Your task to perform on an android device: toggle show notifications on the lock screen Image 0: 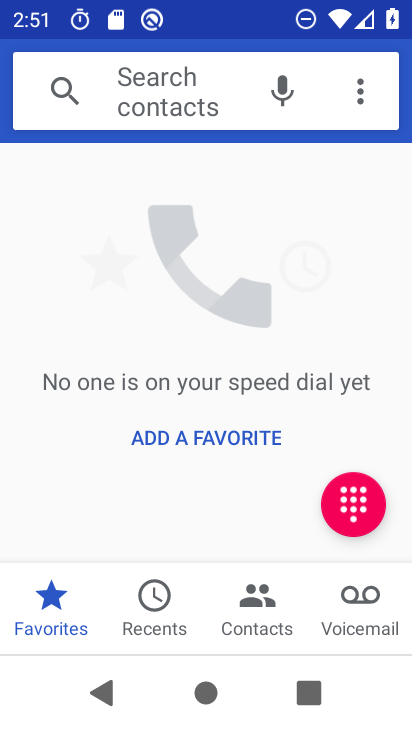
Step 0: press home button
Your task to perform on an android device: toggle show notifications on the lock screen Image 1: 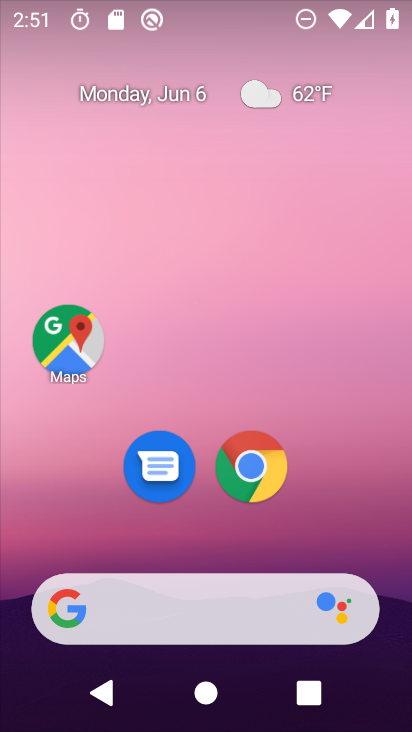
Step 1: drag from (213, 545) to (226, 60)
Your task to perform on an android device: toggle show notifications on the lock screen Image 2: 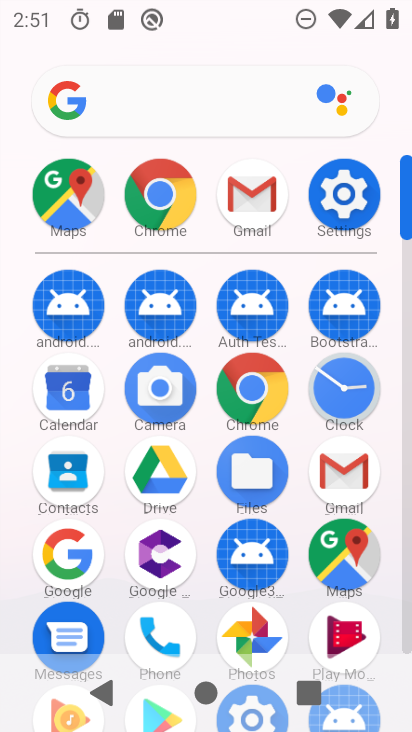
Step 2: click (345, 196)
Your task to perform on an android device: toggle show notifications on the lock screen Image 3: 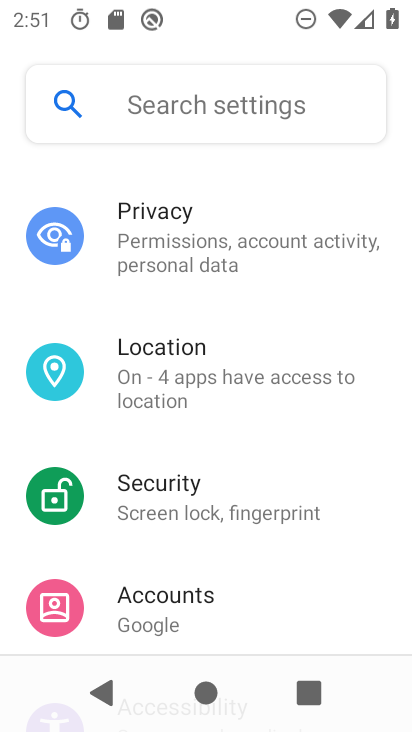
Step 3: drag from (251, 594) to (279, 293)
Your task to perform on an android device: toggle show notifications on the lock screen Image 4: 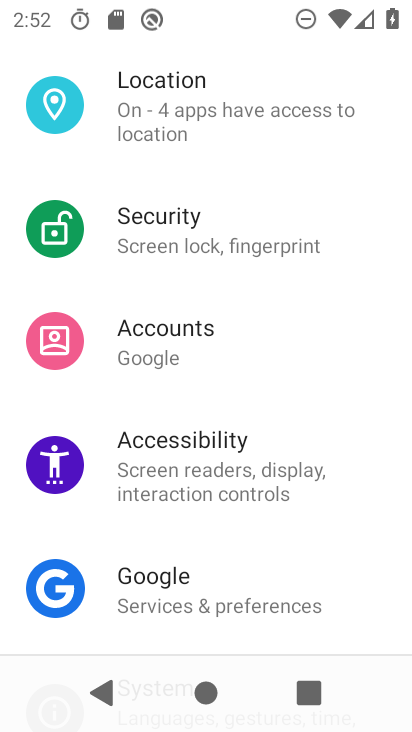
Step 4: drag from (215, 504) to (196, 209)
Your task to perform on an android device: toggle show notifications on the lock screen Image 5: 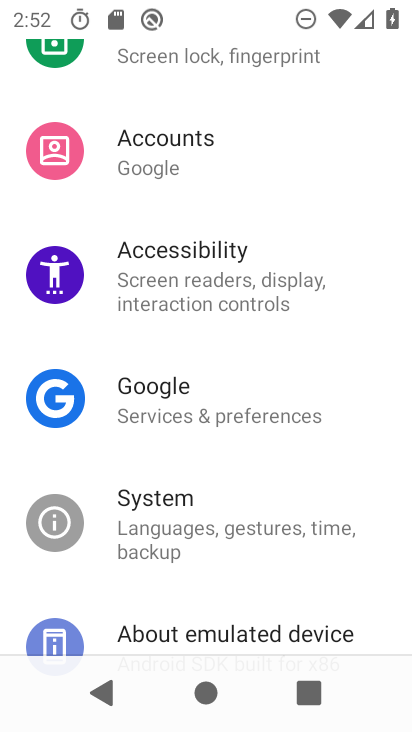
Step 5: drag from (238, 542) to (242, 284)
Your task to perform on an android device: toggle show notifications on the lock screen Image 6: 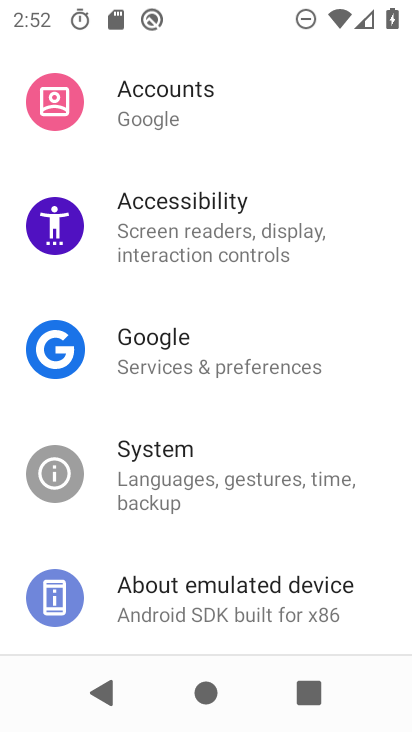
Step 6: drag from (242, 289) to (235, 562)
Your task to perform on an android device: toggle show notifications on the lock screen Image 7: 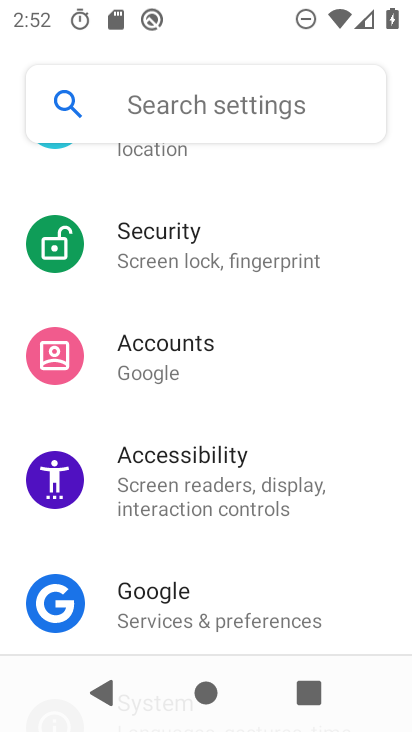
Step 7: drag from (231, 228) to (223, 523)
Your task to perform on an android device: toggle show notifications on the lock screen Image 8: 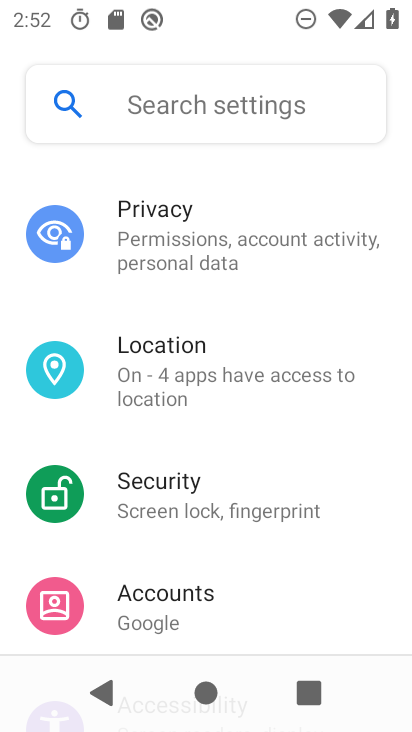
Step 8: drag from (228, 474) to (228, 541)
Your task to perform on an android device: toggle show notifications on the lock screen Image 9: 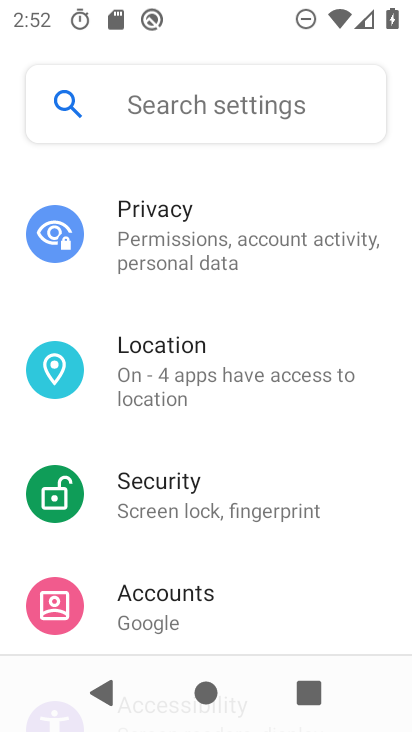
Step 9: drag from (228, 289) to (271, 529)
Your task to perform on an android device: toggle show notifications on the lock screen Image 10: 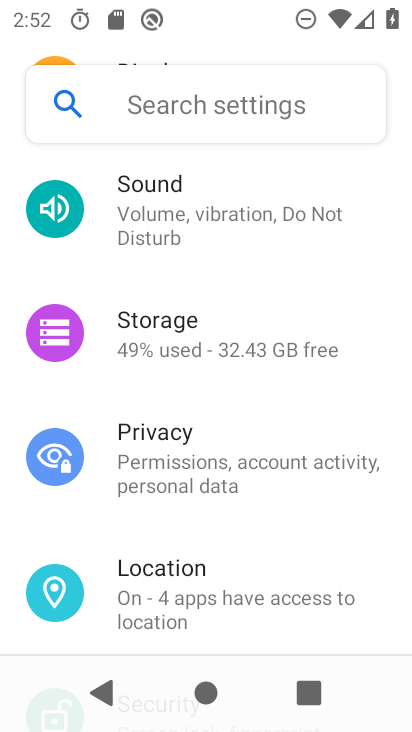
Step 10: drag from (257, 317) to (269, 545)
Your task to perform on an android device: toggle show notifications on the lock screen Image 11: 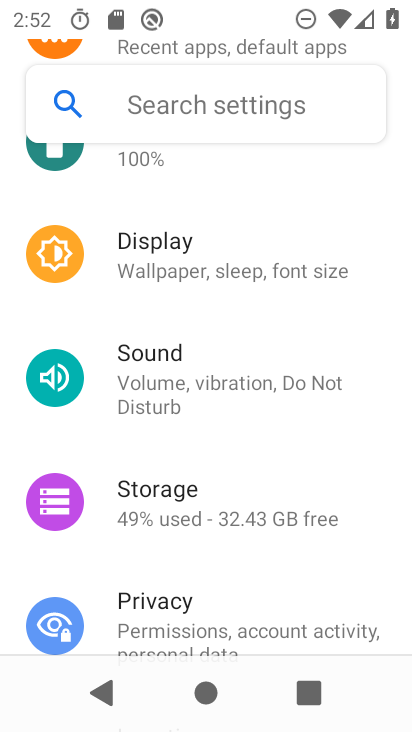
Step 11: drag from (242, 324) to (168, 525)
Your task to perform on an android device: toggle show notifications on the lock screen Image 12: 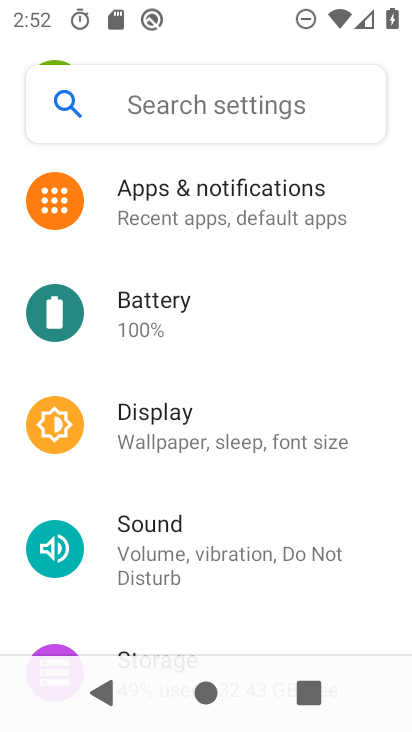
Step 12: click (224, 217)
Your task to perform on an android device: toggle show notifications on the lock screen Image 13: 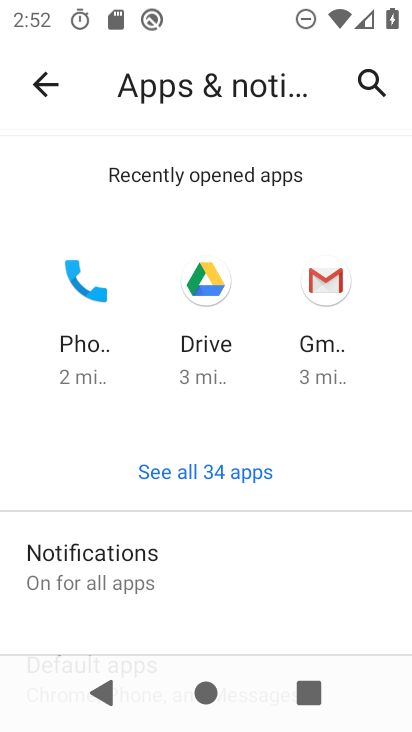
Step 13: drag from (169, 620) to (242, 298)
Your task to perform on an android device: toggle show notifications on the lock screen Image 14: 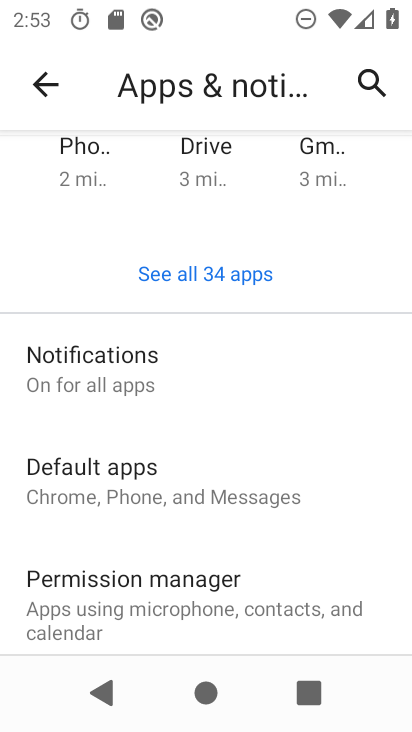
Step 14: click (108, 386)
Your task to perform on an android device: toggle show notifications on the lock screen Image 15: 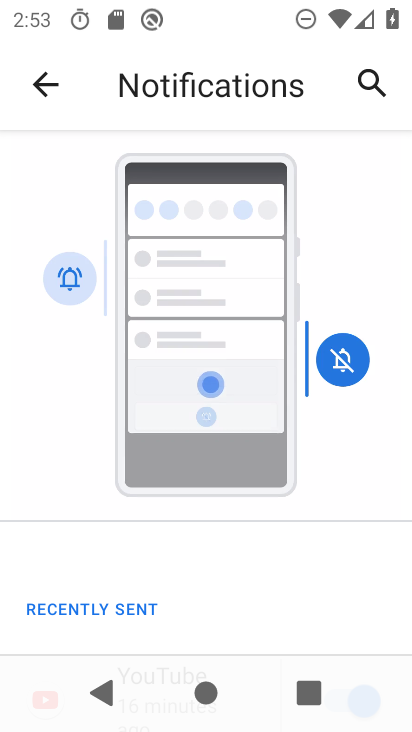
Step 15: drag from (203, 562) to (272, 281)
Your task to perform on an android device: toggle show notifications on the lock screen Image 16: 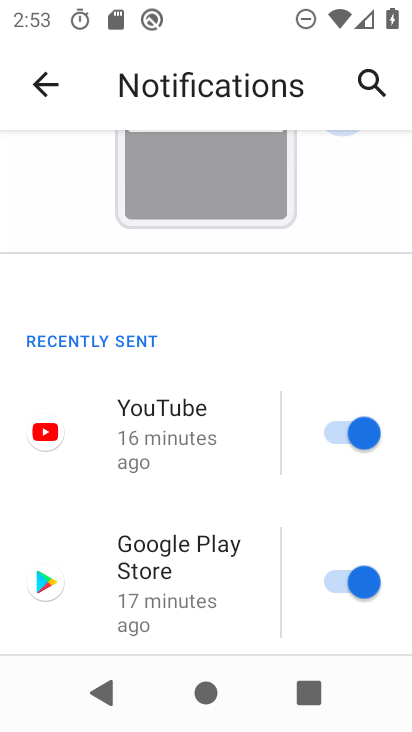
Step 16: drag from (251, 656) to (308, 268)
Your task to perform on an android device: toggle show notifications on the lock screen Image 17: 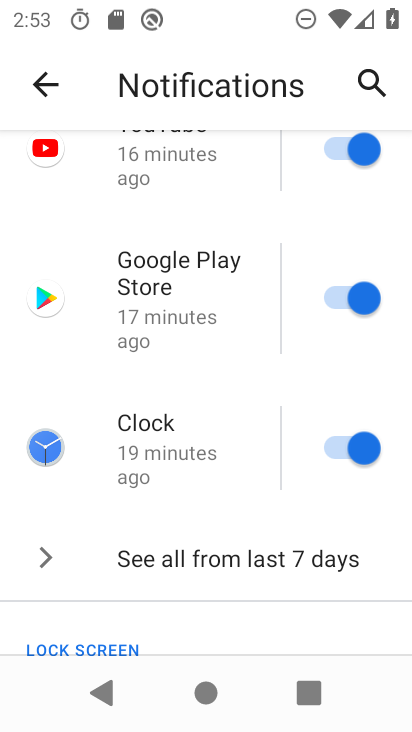
Step 17: drag from (237, 565) to (273, 198)
Your task to perform on an android device: toggle show notifications on the lock screen Image 18: 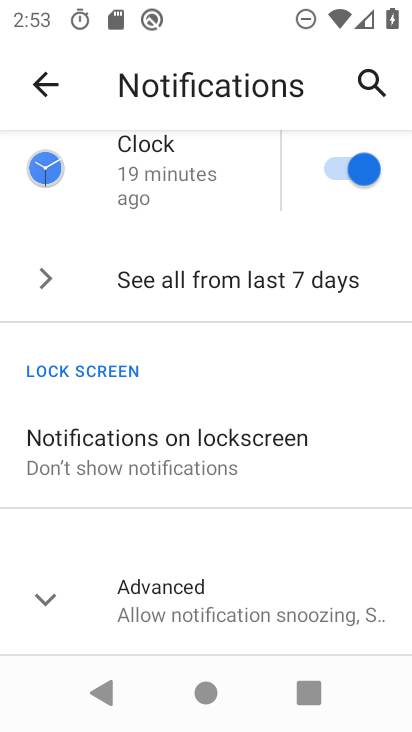
Step 18: click (150, 452)
Your task to perform on an android device: toggle show notifications on the lock screen Image 19: 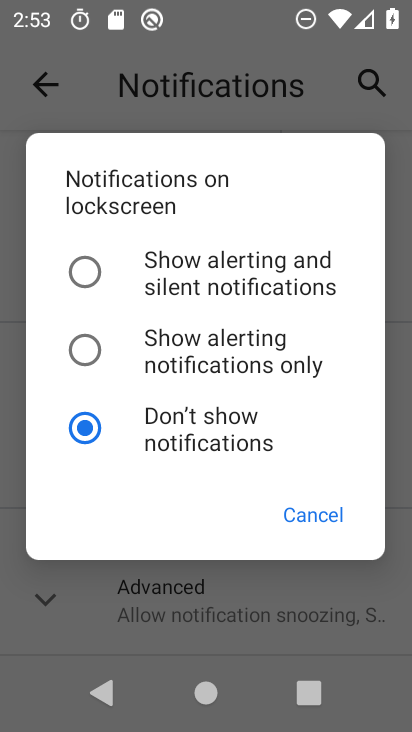
Step 19: click (83, 277)
Your task to perform on an android device: toggle show notifications on the lock screen Image 20: 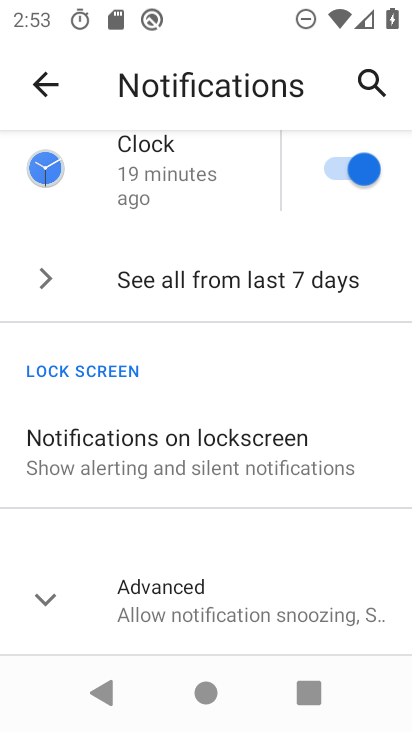
Step 20: task complete